Your task to perform on an android device: Go to Maps Image 0: 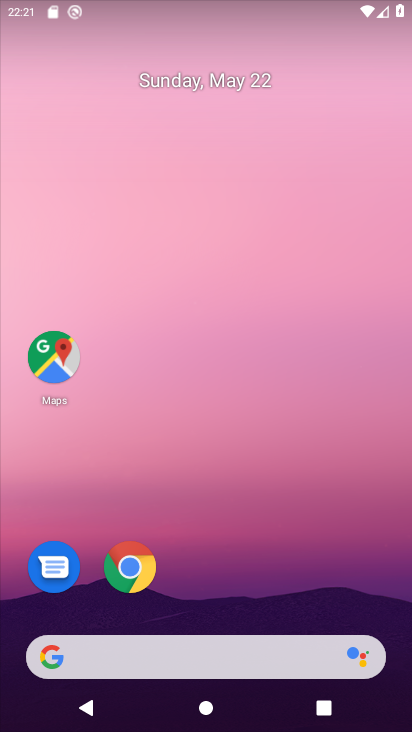
Step 0: click (46, 354)
Your task to perform on an android device: Go to Maps Image 1: 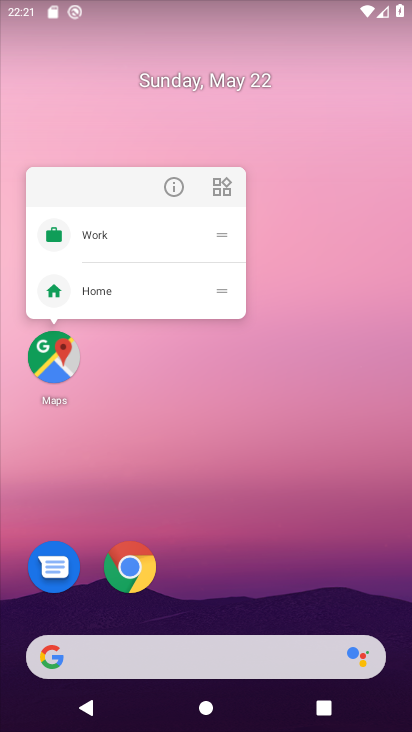
Step 1: click (49, 355)
Your task to perform on an android device: Go to Maps Image 2: 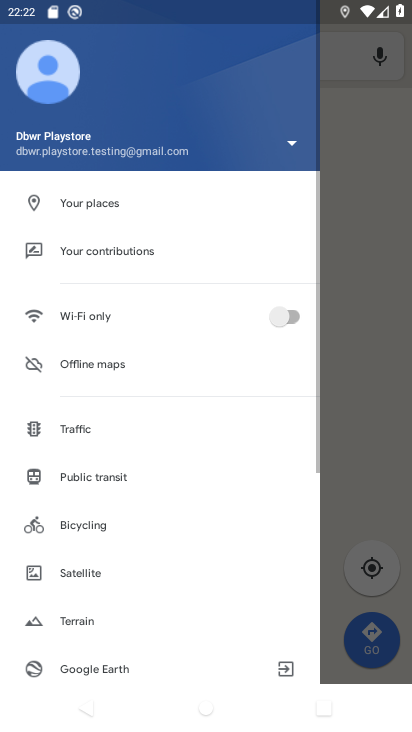
Step 2: click (365, 355)
Your task to perform on an android device: Go to Maps Image 3: 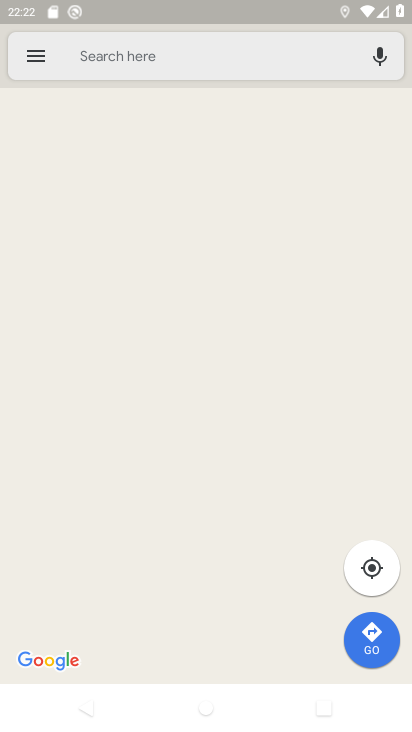
Step 3: task complete